Your task to perform on an android device: Go to battery settings Image 0: 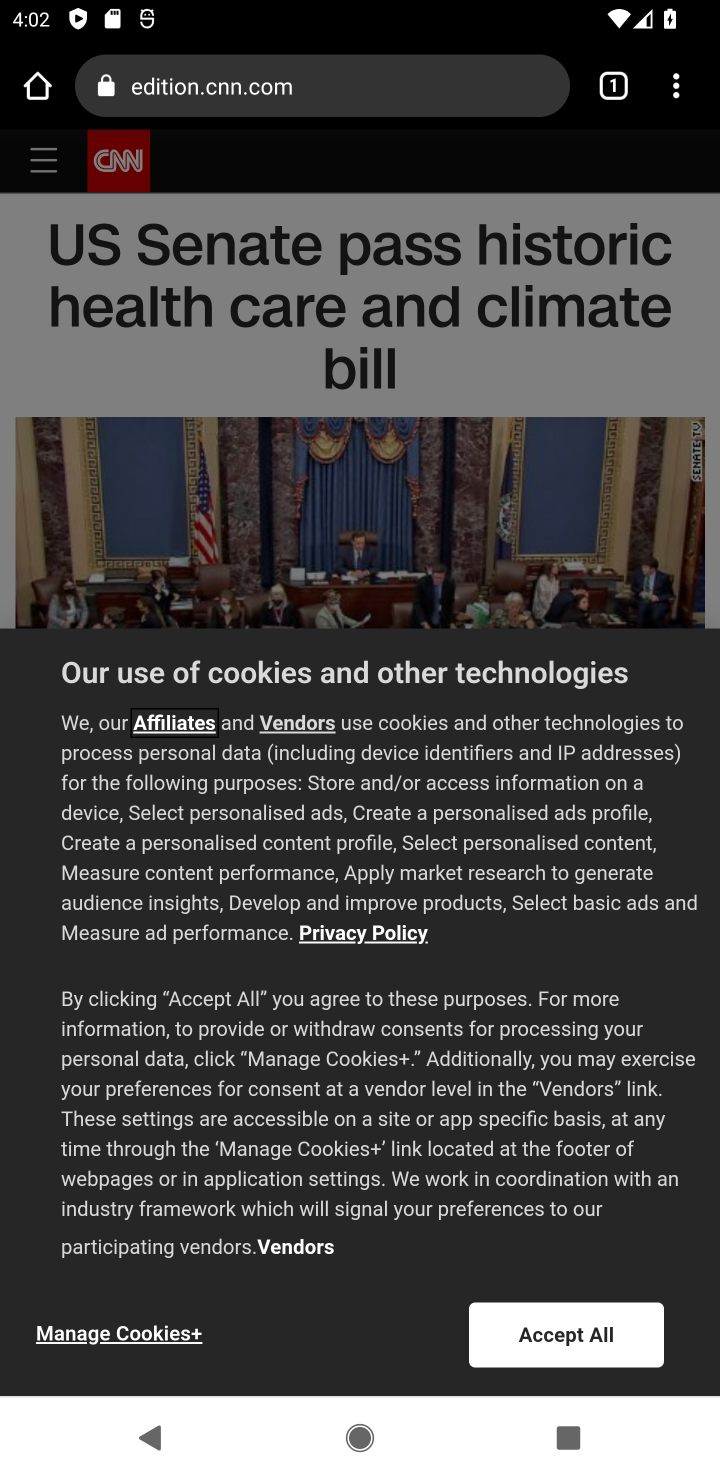
Step 0: press home button
Your task to perform on an android device: Go to battery settings Image 1: 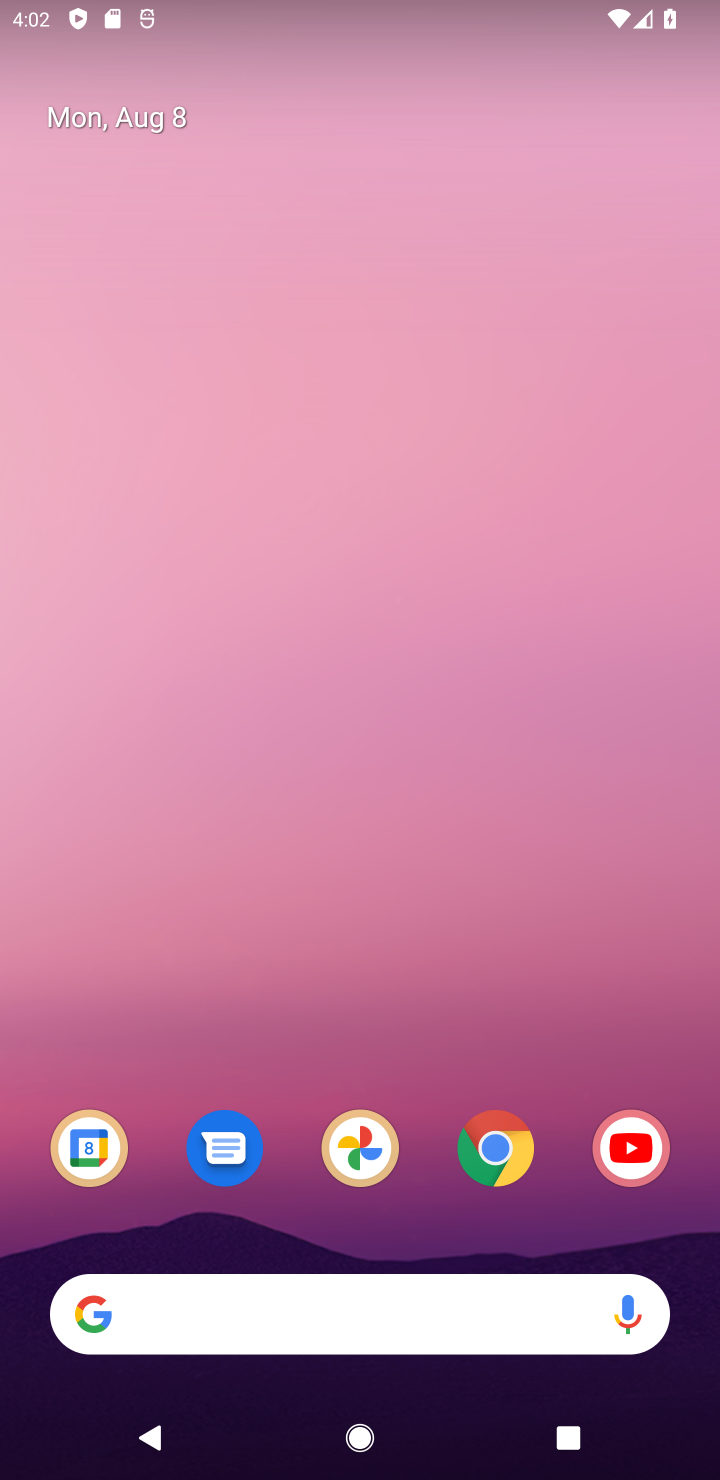
Step 1: drag from (362, 990) to (207, 2)
Your task to perform on an android device: Go to battery settings Image 2: 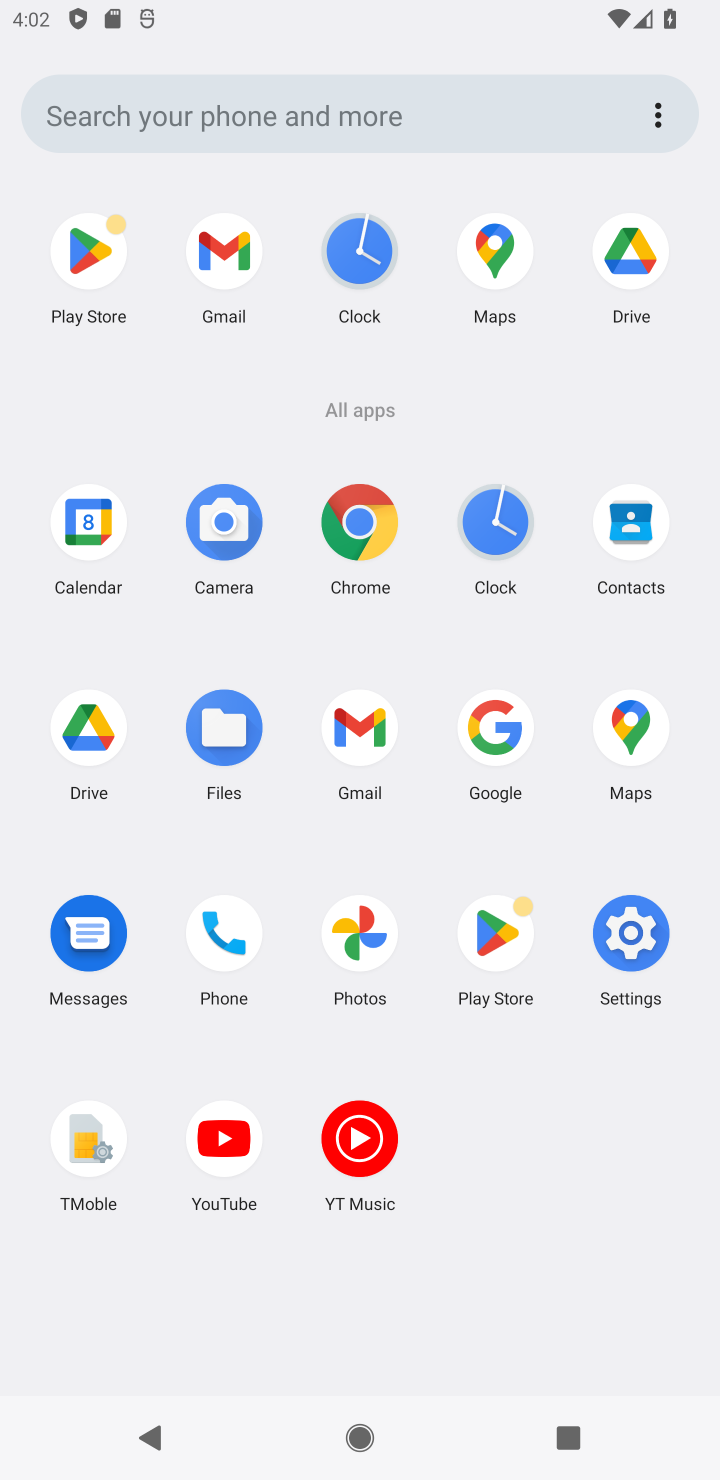
Step 2: click (638, 939)
Your task to perform on an android device: Go to battery settings Image 3: 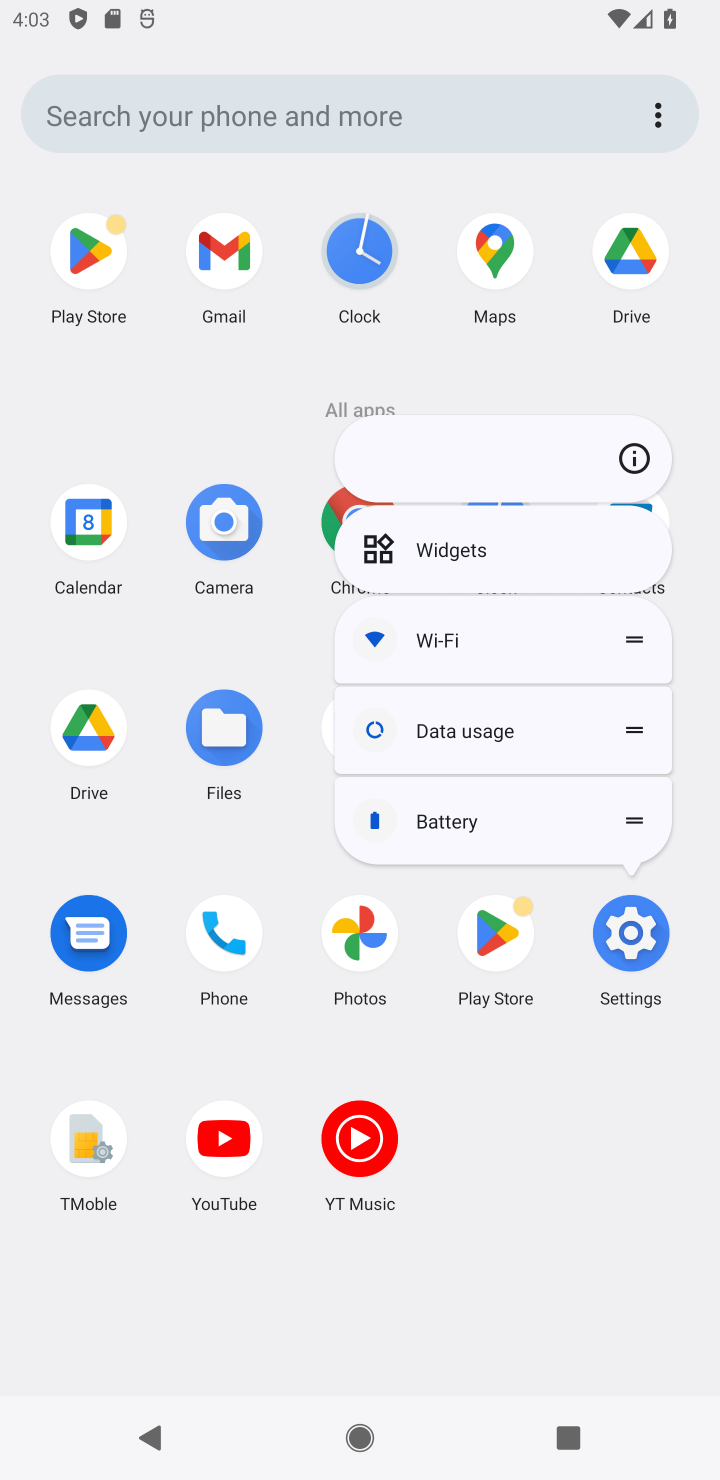
Step 3: click (613, 955)
Your task to perform on an android device: Go to battery settings Image 4: 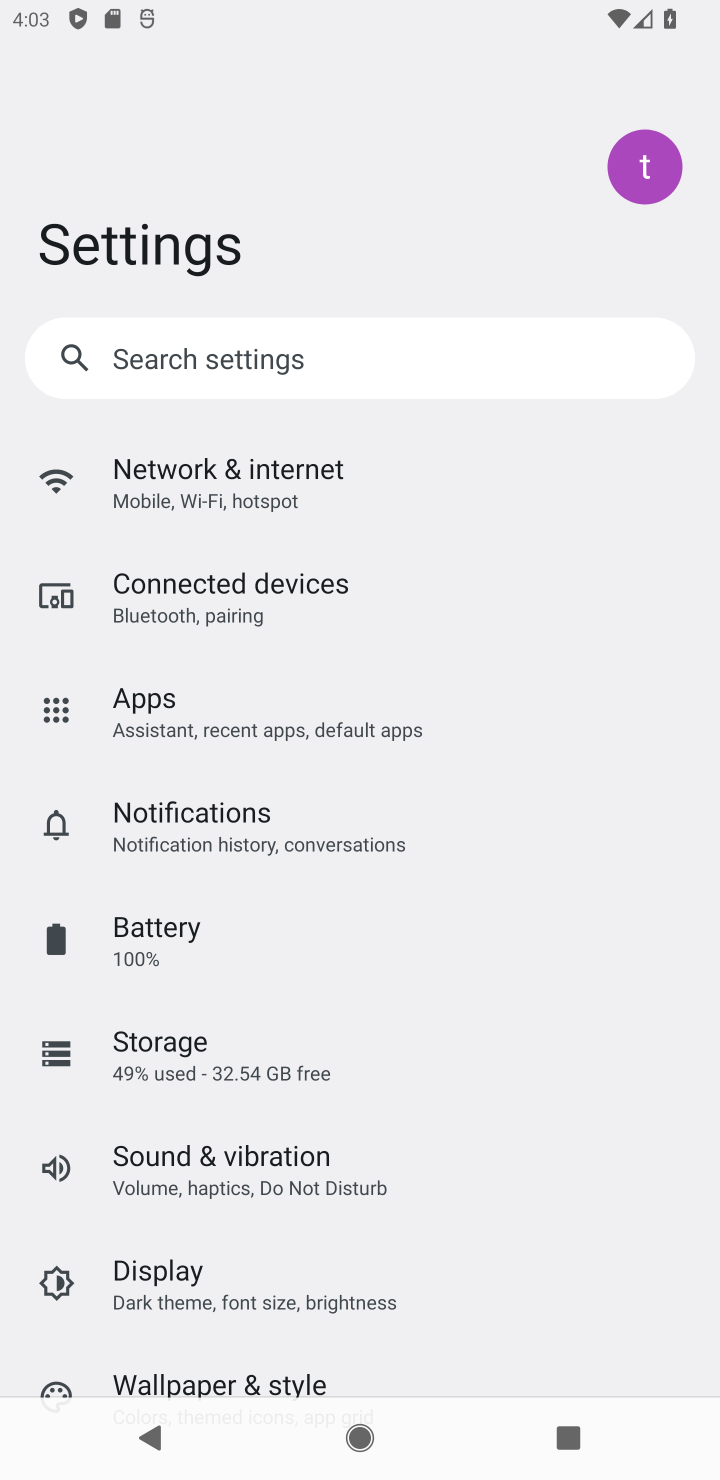
Step 4: click (159, 955)
Your task to perform on an android device: Go to battery settings Image 5: 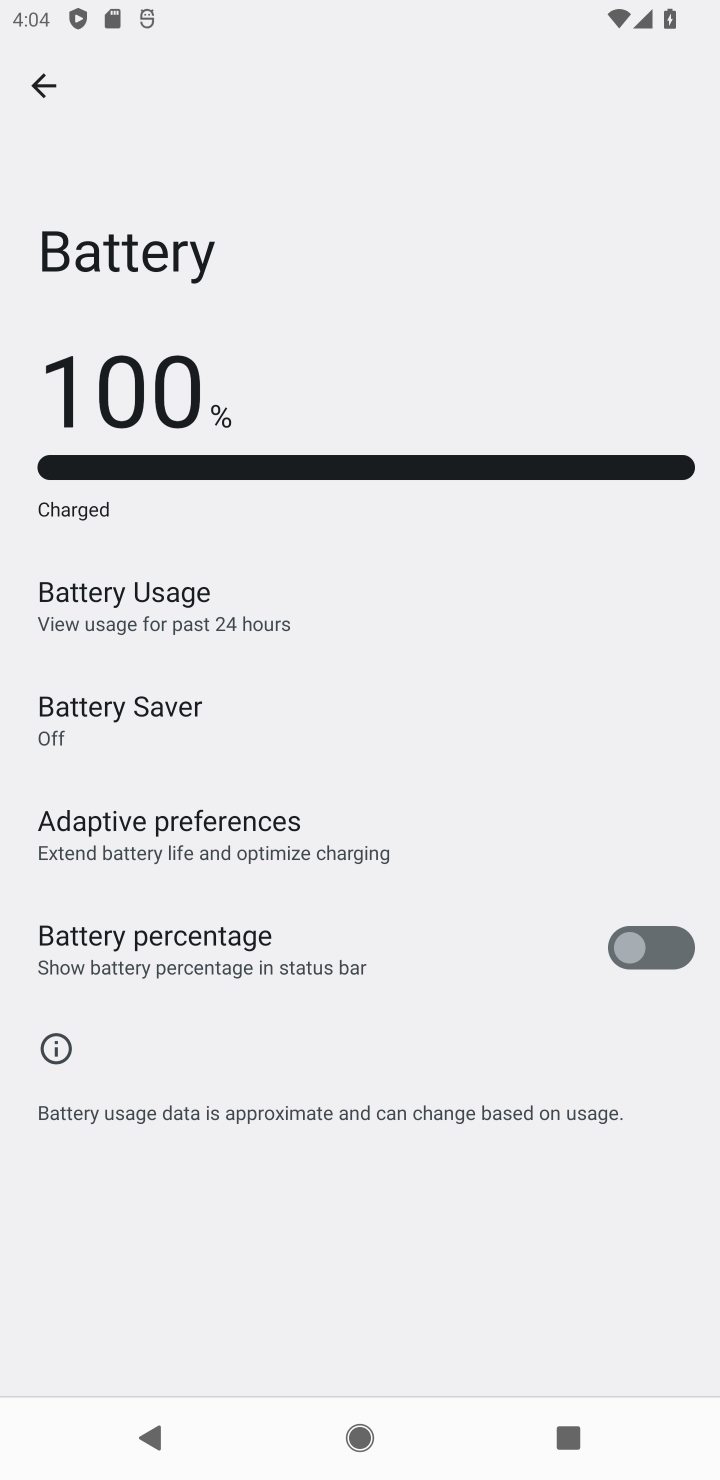
Step 5: task complete